Your task to perform on an android device: toggle notifications settings in the gmail app Image 0: 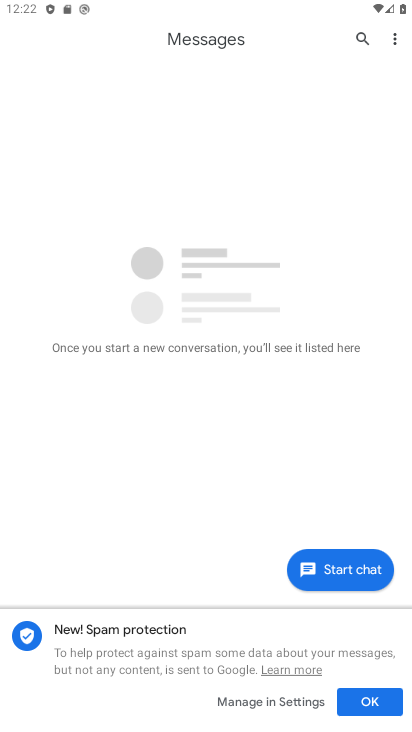
Step 0: press home button
Your task to perform on an android device: toggle notifications settings in the gmail app Image 1: 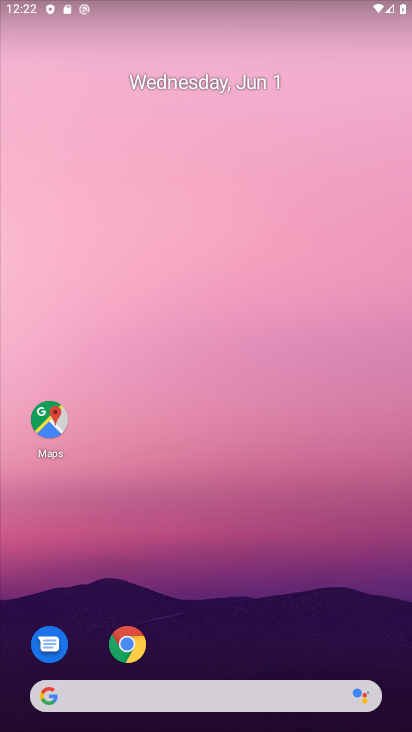
Step 1: drag from (279, 538) to (271, 6)
Your task to perform on an android device: toggle notifications settings in the gmail app Image 2: 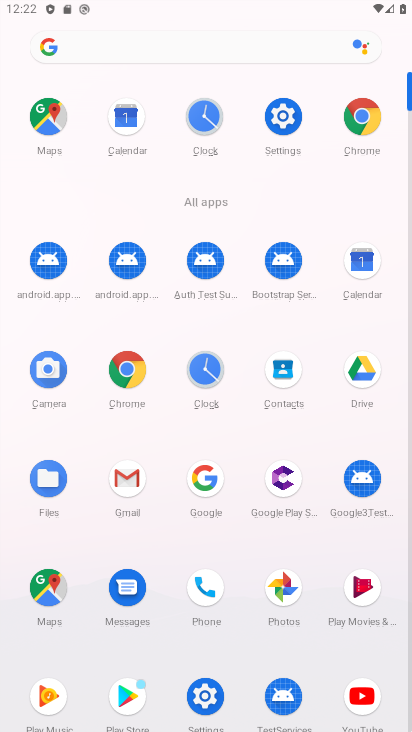
Step 2: click (149, 490)
Your task to perform on an android device: toggle notifications settings in the gmail app Image 3: 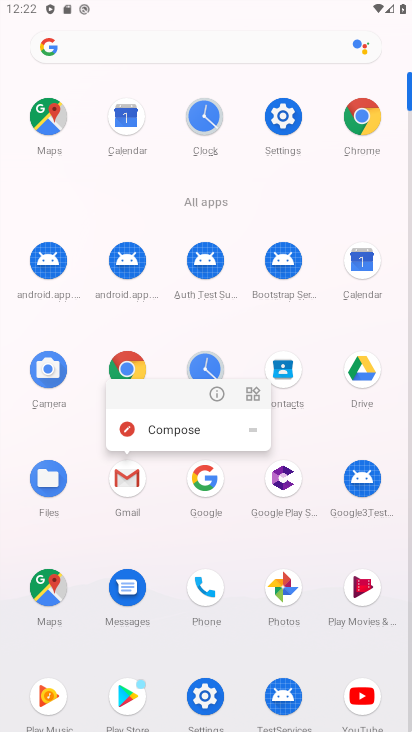
Step 3: click (205, 387)
Your task to perform on an android device: toggle notifications settings in the gmail app Image 4: 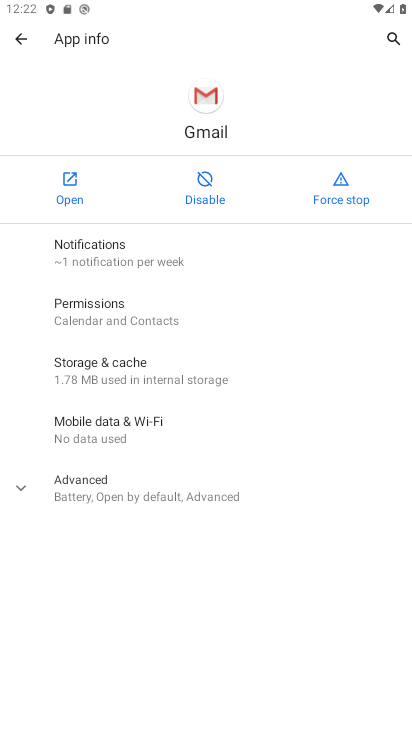
Step 4: click (187, 243)
Your task to perform on an android device: toggle notifications settings in the gmail app Image 5: 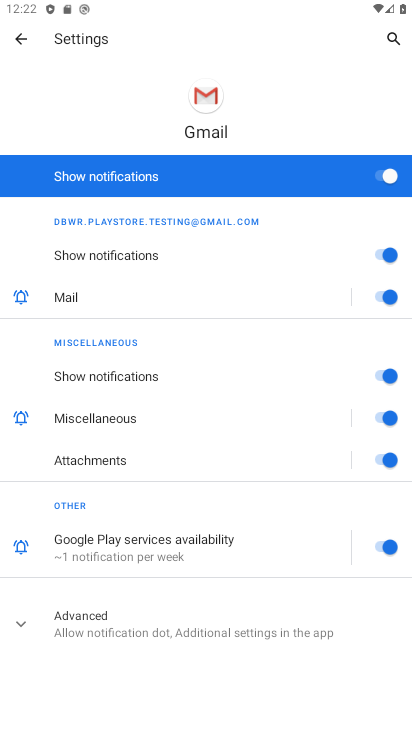
Step 5: click (328, 169)
Your task to perform on an android device: toggle notifications settings in the gmail app Image 6: 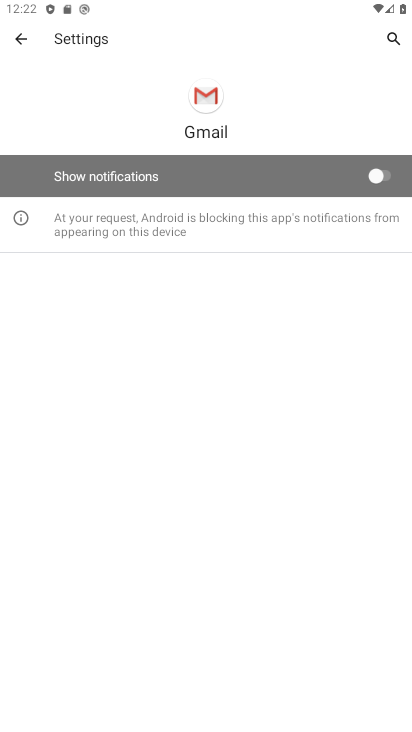
Step 6: task complete